Your task to perform on an android device: turn on data saver in the chrome app Image 0: 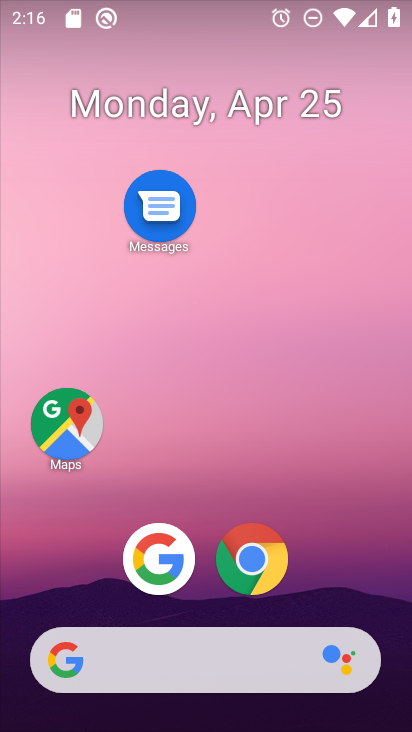
Step 0: click (252, 558)
Your task to perform on an android device: turn on data saver in the chrome app Image 1: 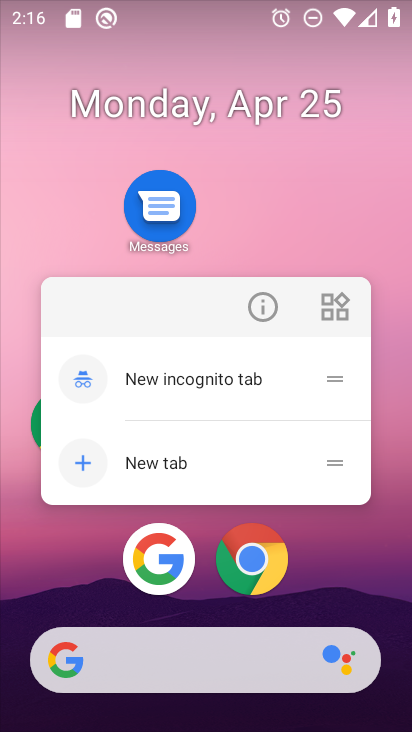
Step 1: click (253, 571)
Your task to perform on an android device: turn on data saver in the chrome app Image 2: 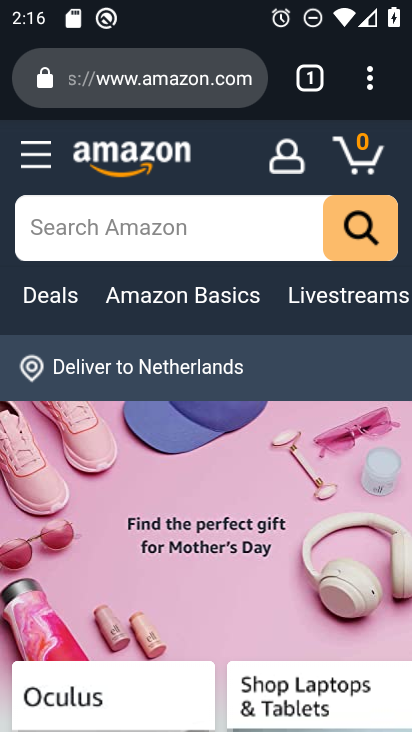
Step 2: click (363, 80)
Your task to perform on an android device: turn on data saver in the chrome app Image 3: 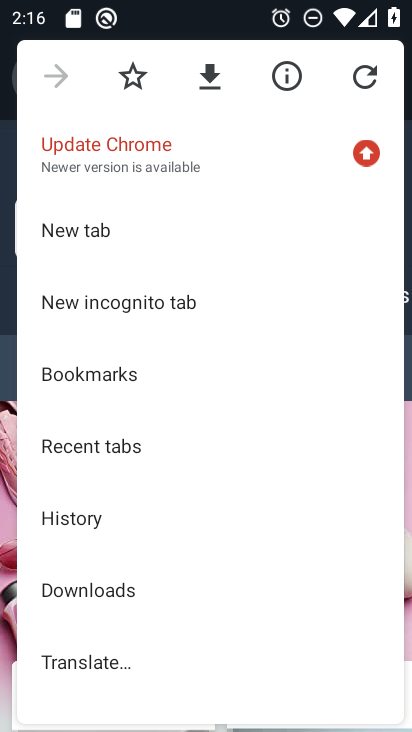
Step 3: drag from (183, 617) to (208, 260)
Your task to perform on an android device: turn on data saver in the chrome app Image 4: 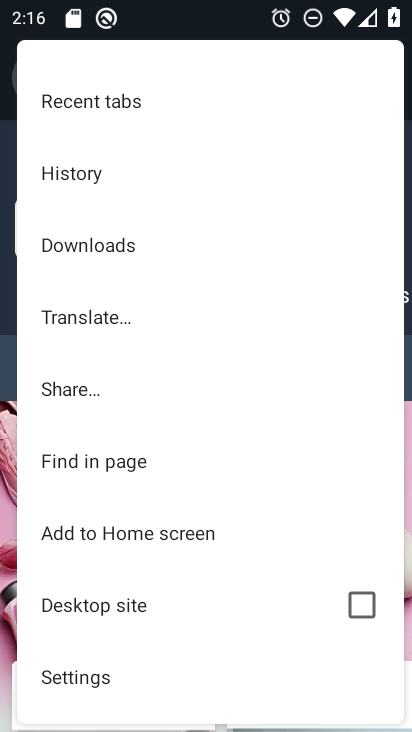
Step 4: click (101, 674)
Your task to perform on an android device: turn on data saver in the chrome app Image 5: 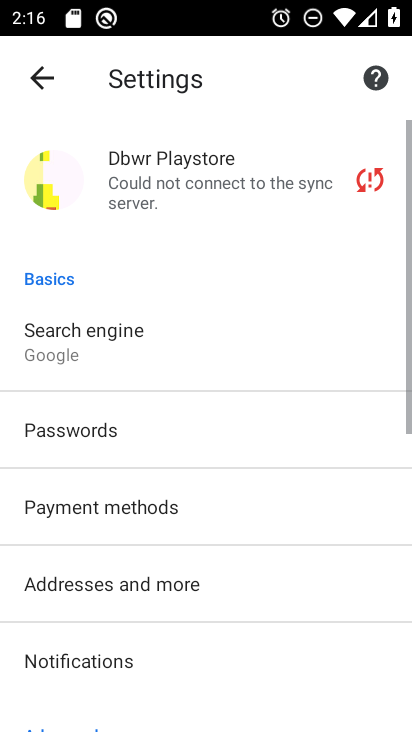
Step 5: drag from (162, 552) to (201, 153)
Your task to perform on an android device: turn on data saver in the chrome app Image 6: 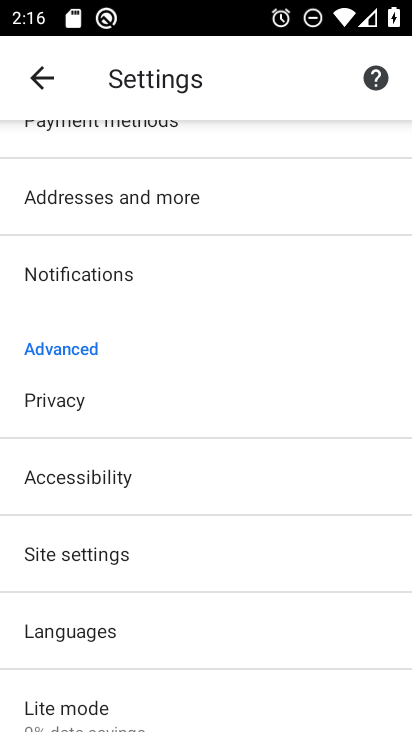
Step 6: click (68, 711)
Your task to perform on an android device: turn on data saver in the chrome app Image 7: 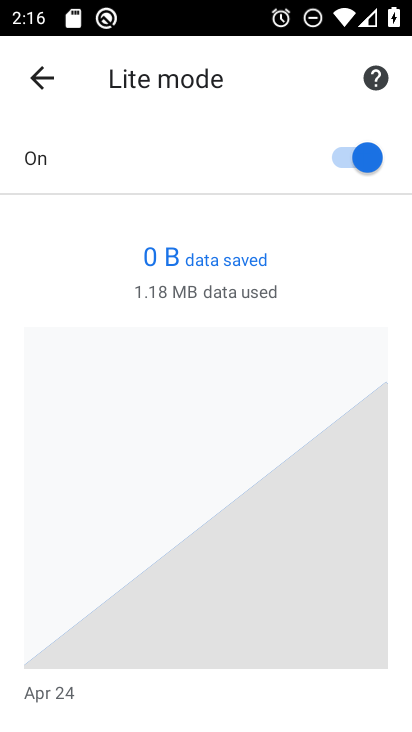
Step 7: task complete